Your task to perform on an android device: Open Google Chrome and click the shortcut for Amazon.com Image 0: 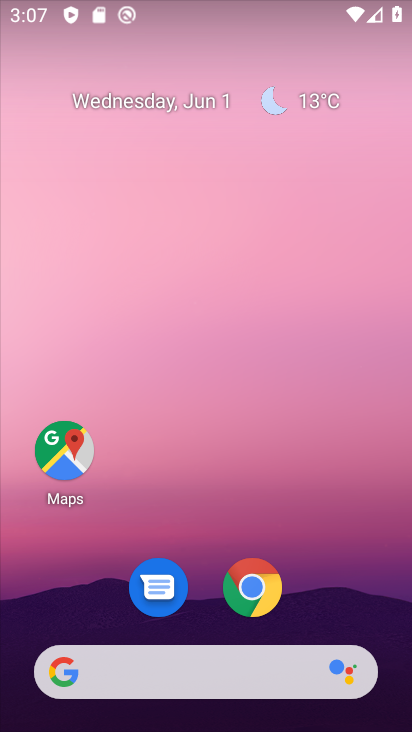
Step 0: drag from (270, 326) to (143, 7)
Your task to perform on an android device: Open Google Chrome and click the shortcut for Amazon.com Image 1: 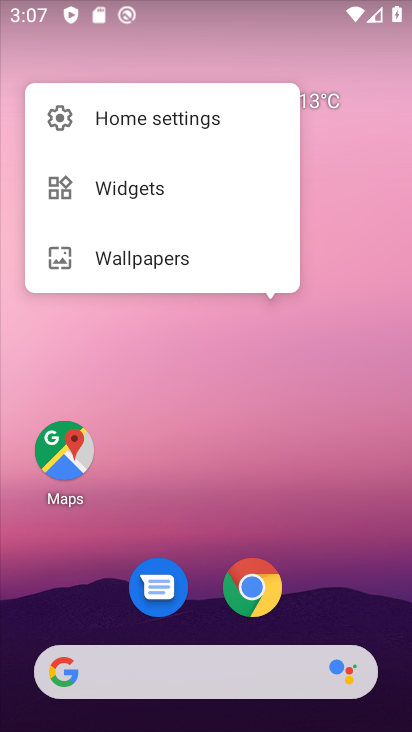
Step 1: drag from (298, 452) to (195, 11)
Your task to perform on an android device: Open Google Chrome and click the shortcut for Amazon.com Image 2: 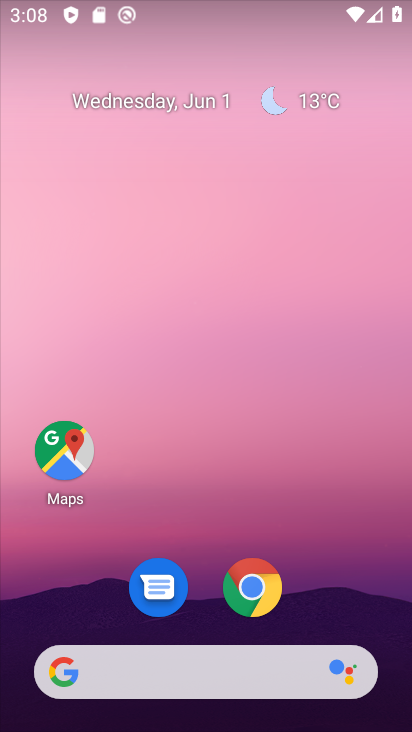
Step 2: drag from (290, 498) to (196, 22)
Your task to perform on an android device: Open Google Chrome and click the shortcut for Amazon.com Image 3: 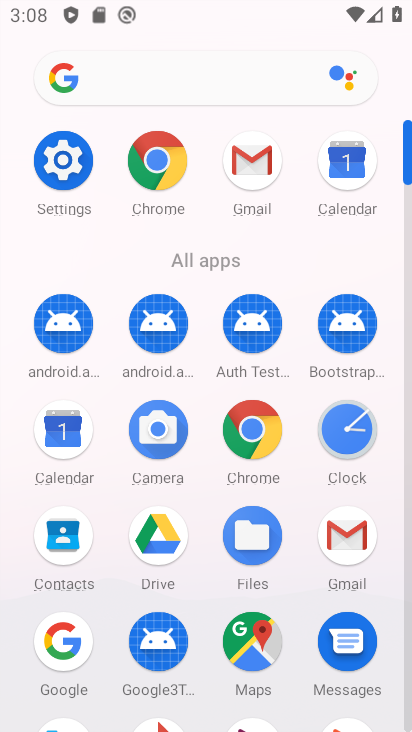
Step 3: click (251, 426)
Your task to perform on an android device: Open Google Chrome and click the shortcut for Amazon.com Image 4: 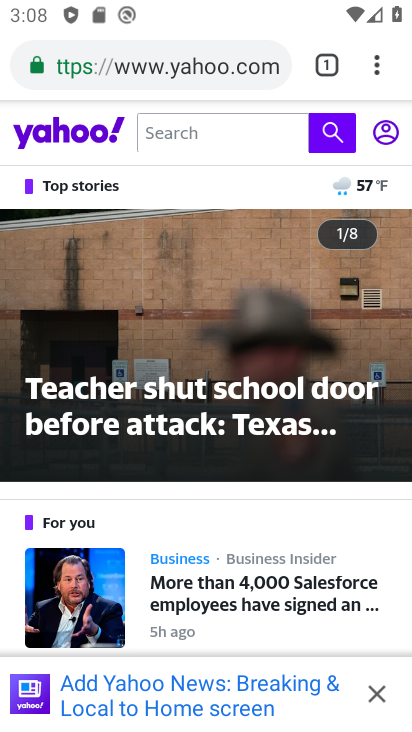
Step 4: click (197, 56)
Your task to perform on an android device: Open Google Chrome and click the shortcut for Amazon.com Image 5: 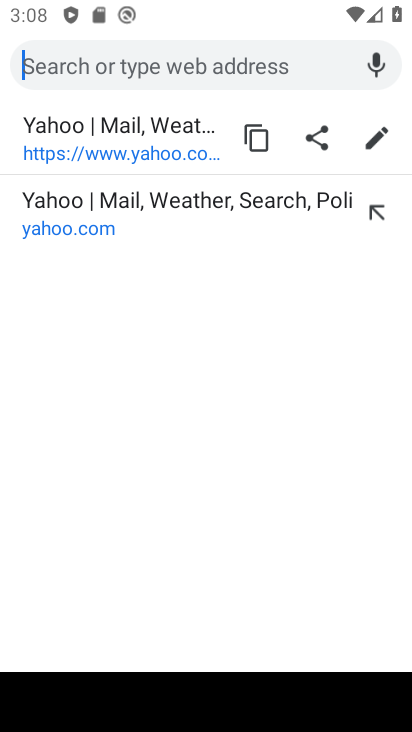
Step 5: type " Amazon.com"
Your task to perform on an android device: Open Google Chrome and click the shortcut for Amazon.com Image 6: 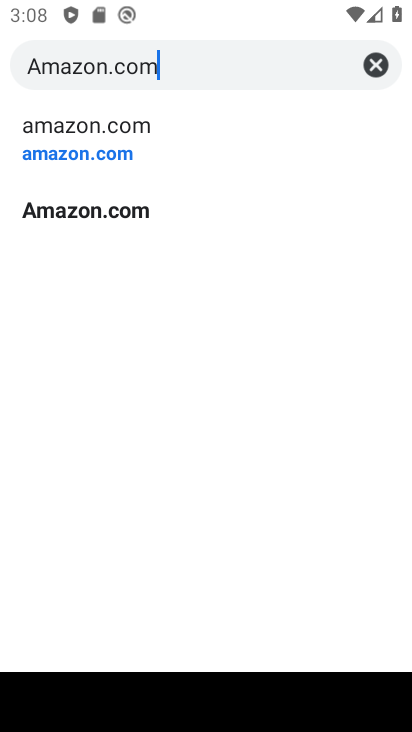
Step 6: type ""
Your task to perform on an android device: Open Google Chrome and click the shortcut for Amazon.com Image 7: 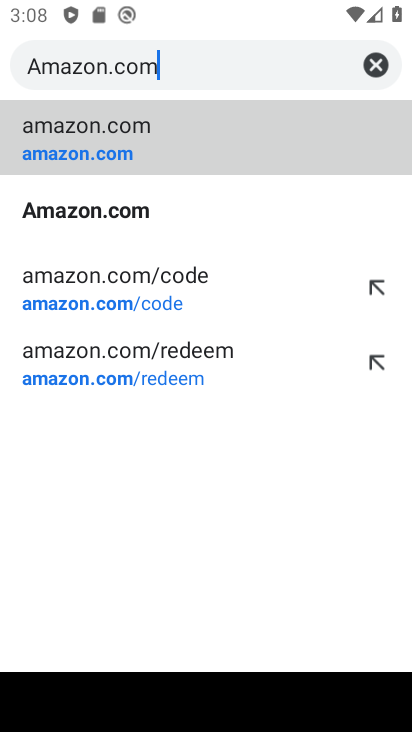
Step 7: click (152, 137)
Your task to perform on an android device: Open Google Chrome and click the shortcut for Amazon.com Image 8: 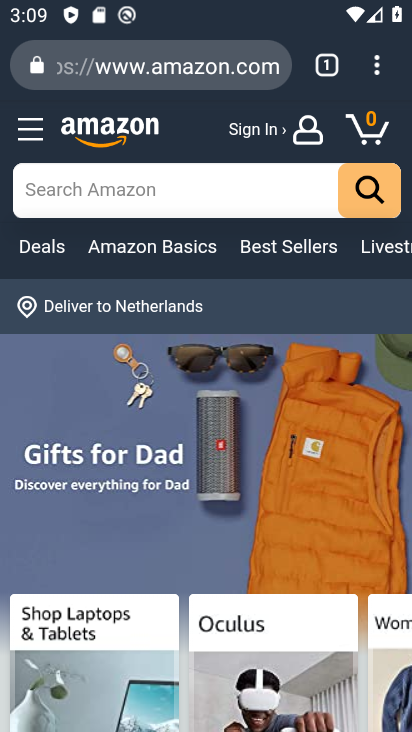
Step 8: task complete